Your task to perform on an android device: Go to internet settings Image 0: 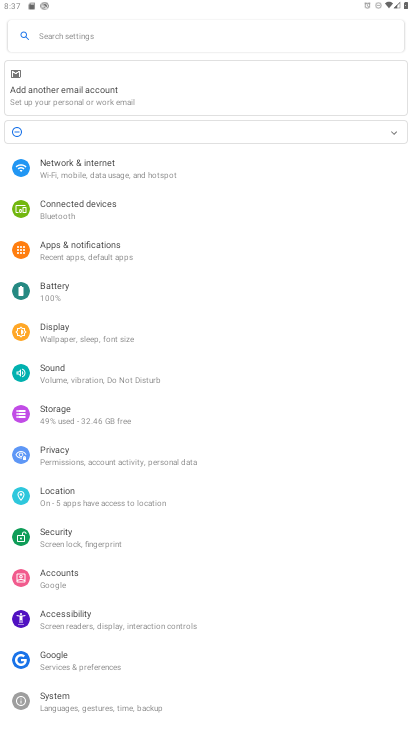
Step 0: press home button
Your task to perform on an android device: Go to internet settings Image 1: 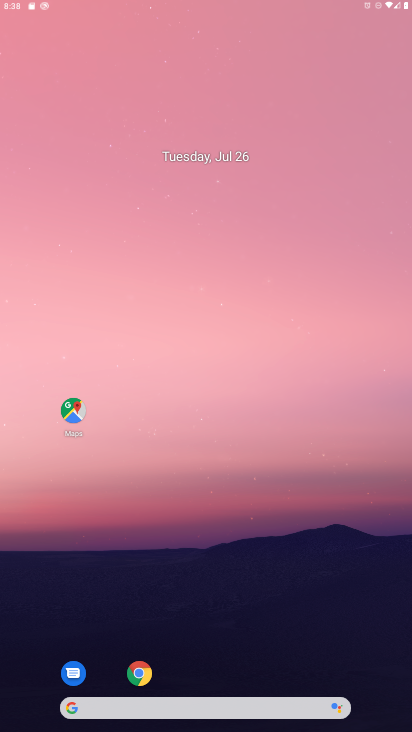
Step 1: drag from (380, 706) to (175, 2)
Your task to perform on an android device: Go to internet settings Image 2: 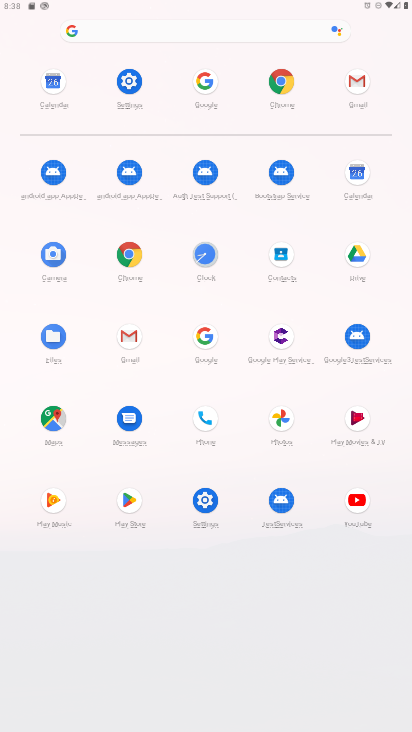
Step 2: click (200, 500)
Your task to perform on an android device: Go to internet settings Image 3: 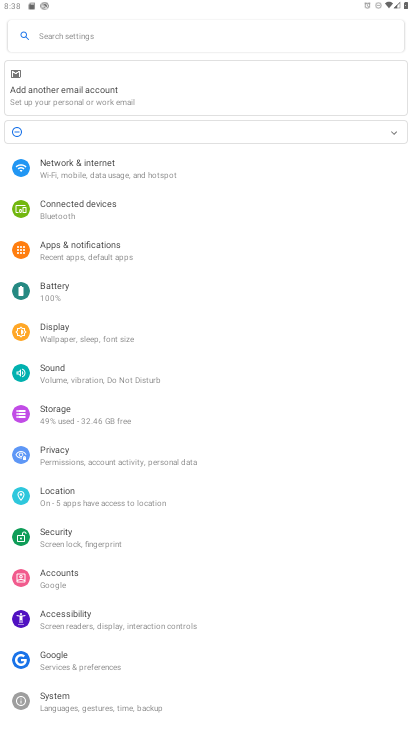
Step 3: click (146, 175)
Your task to perform on an android device: Go to internet settings Image 4: 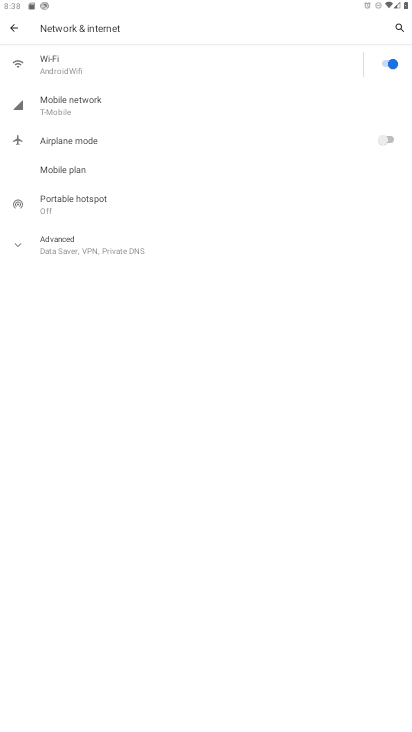
Step 4: task complete